Your task to perform on an android device: Open Youtube and go to the subscriptions tab Image 0: 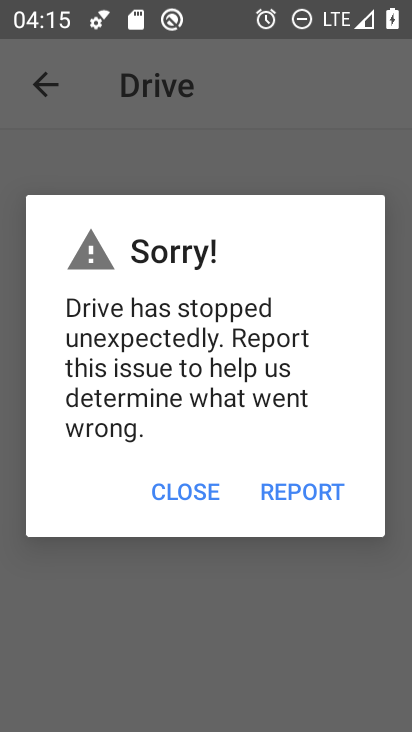
Step 0: press home button
Your task to perform on an android device: Open Youtube and go to the subscriptions tab Image 1: 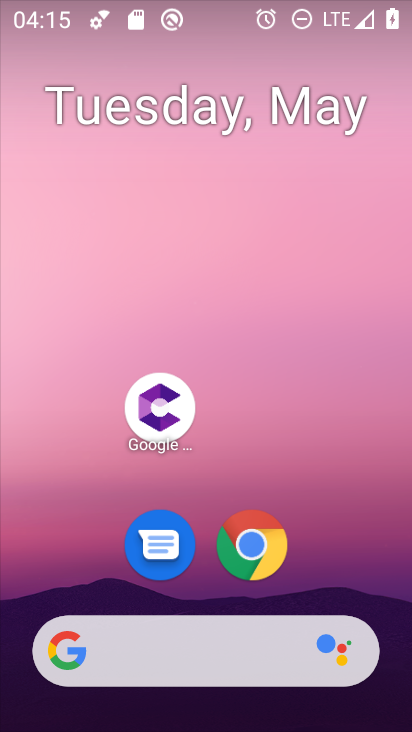
Step 1: drag from (370, 576) to (359, 136)
Your task to perform on an android device: Open Youtube and go to the subscriptions tab Image 2: 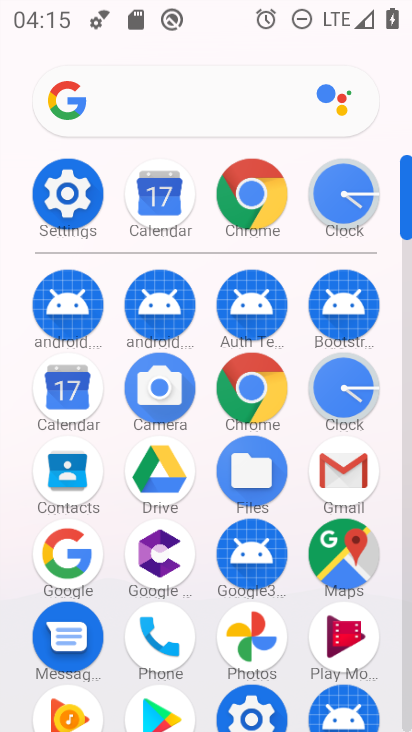
Step 2: drag from (203, 600) to (210, 426)
Your task to perform on an android device: Open Youtube and go to the subscriptions tab Image 3: 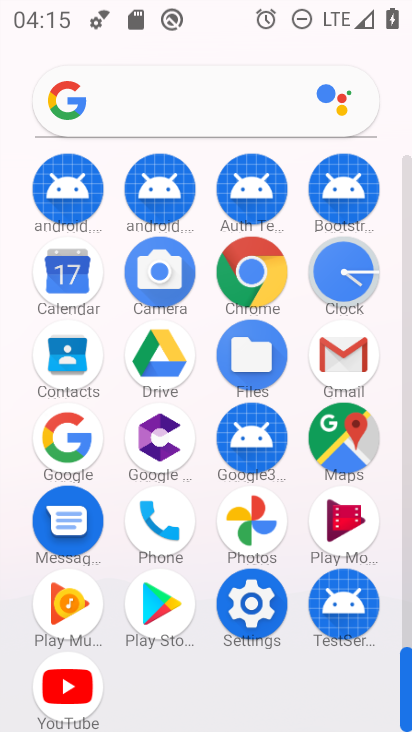
Step 3: click (80, 696)
Your task to perform on an android device: Open Youtube and go to the subscriptions tab Image 4: 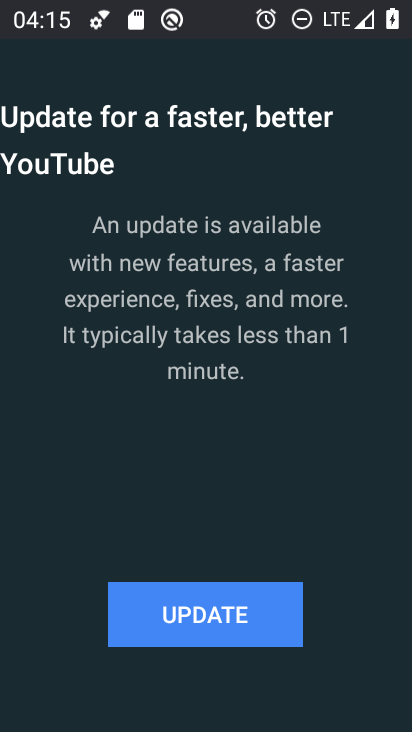
Step 4: click (226, 648)
Your task to perform on an android device: Open Youtube and go to the subscriptions tab Image 5: 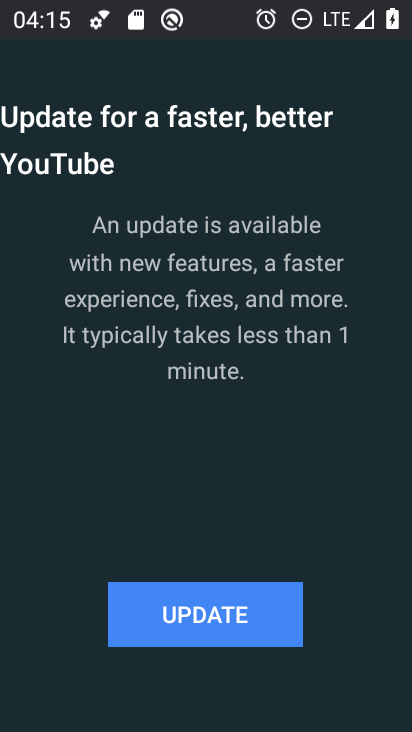
Step 5: click (226, 607)
Your task to perform on an android device: Open Youtube and go to the subscriptions tab Image 6: 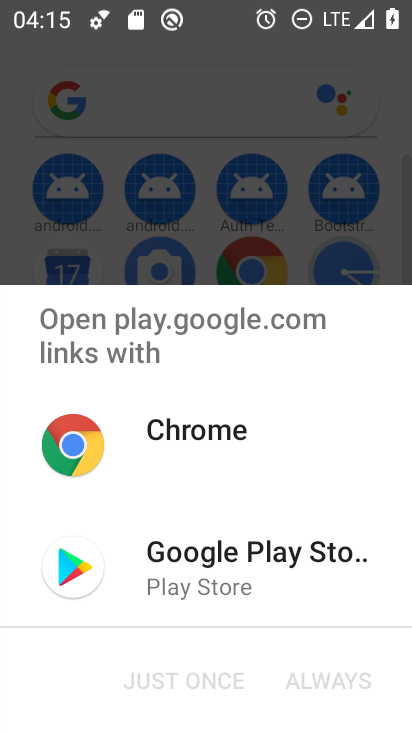
Step 6: click (217, 585)
Your task to perform on an android device: Open Youtube and go to the subscriptions tab Image 7: 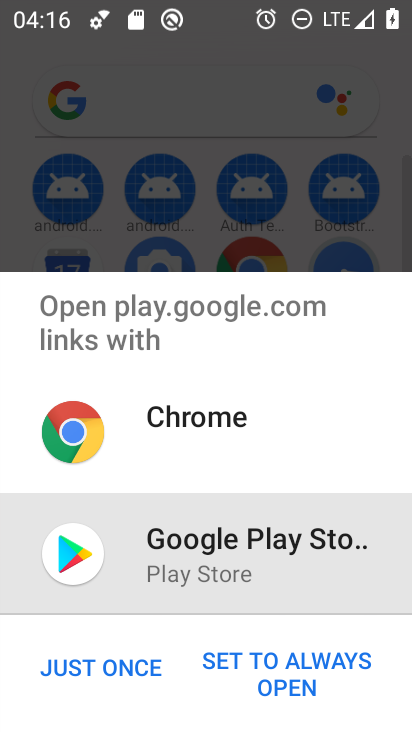
Step 7: click (129, 663)
Your task to perform on an android device: Open Youtube and go to the subscriptions tab Image 8: 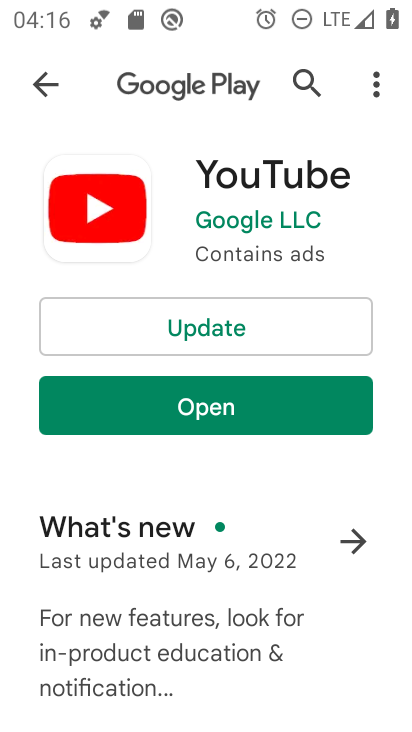
Step 8: click (202, 329)
Your task to perform on an android device: Open Youtube and go to the subscriptions tab Image 9: 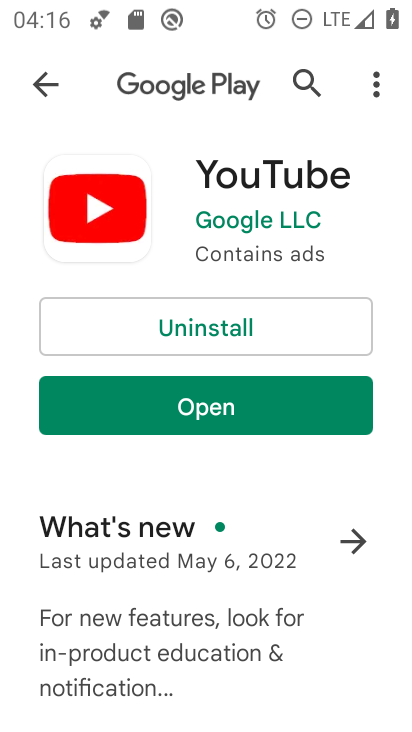
Step 9: click (199, 410)
Your task to perform on an android device: Open Youtube and go to the subscriptions tab Image 10: 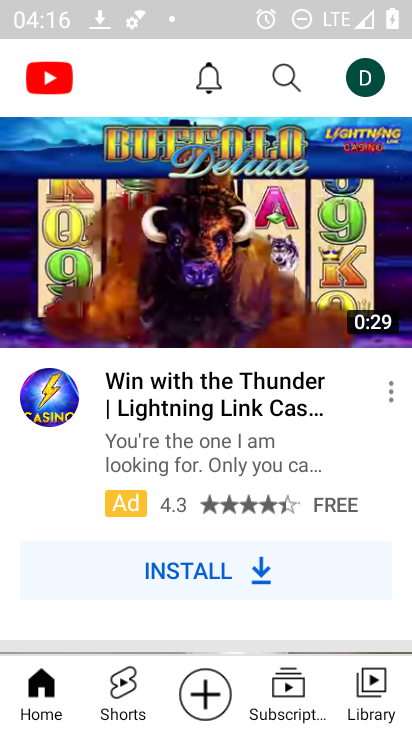
Step 10: click (289, 689)
Your task to perform on an android device: Open Youtube and go to the subscriptions tab Image 11: 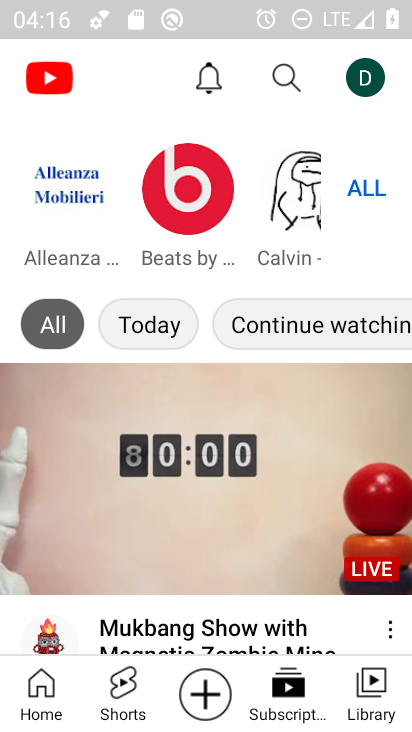
Step 11: task complete